Your task to perform on an android device: Play the last video I watched on Youtube Image 0: 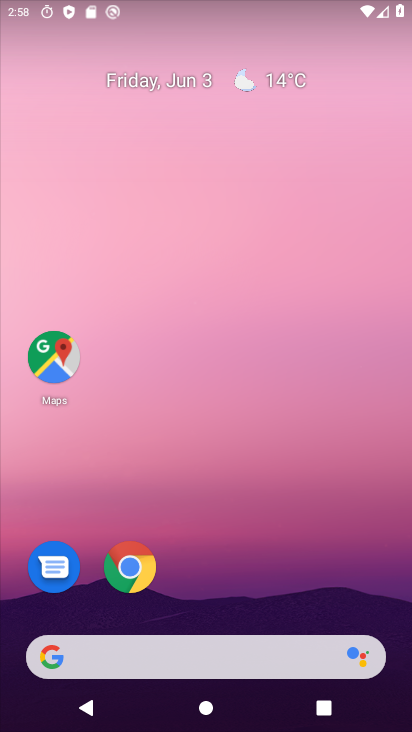
Step 0: drag from (210, 434) to (269, 48)
Your task to perform on an android device: Play the last video I watched on Youtube Image 1: 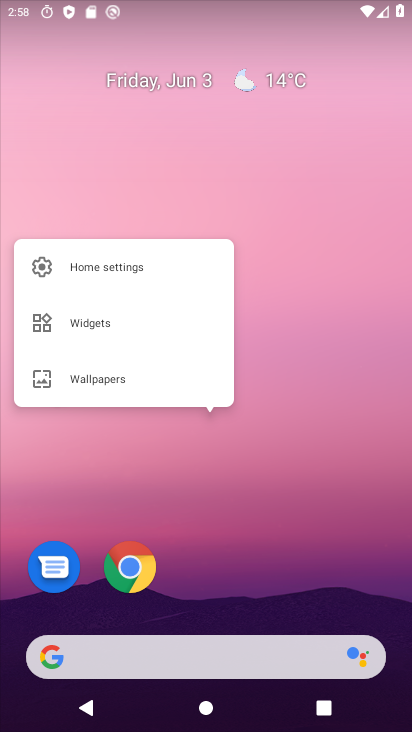
Step 1: click (269, 579)
Your task to perform on an android device: Play the last video I watched on Youtube Image 2: 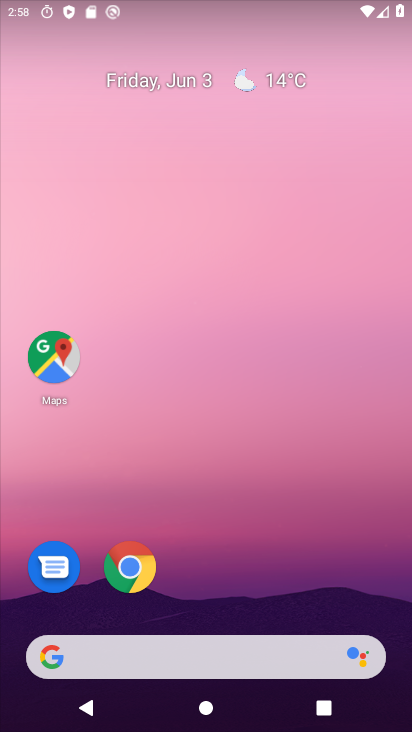
Step 2: drag from (260, 556) to (319, 9)
Your task to perform on an android device: Play the last video I watched on Youtube Image 3: 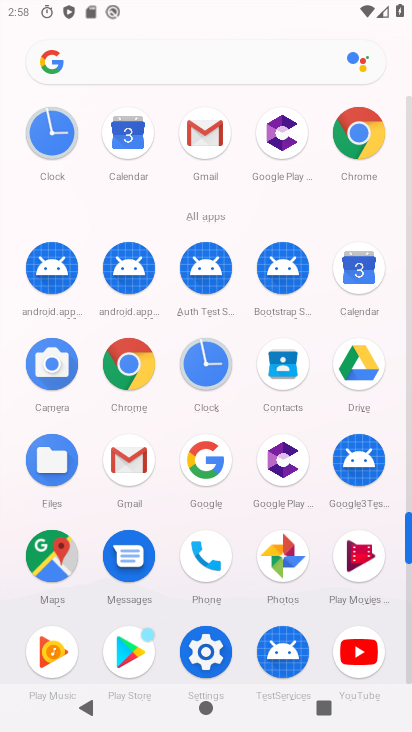
Step 3: click (356, 642)
Your task to perform on an android device: Play the last video I watched on Youtube Image 4: 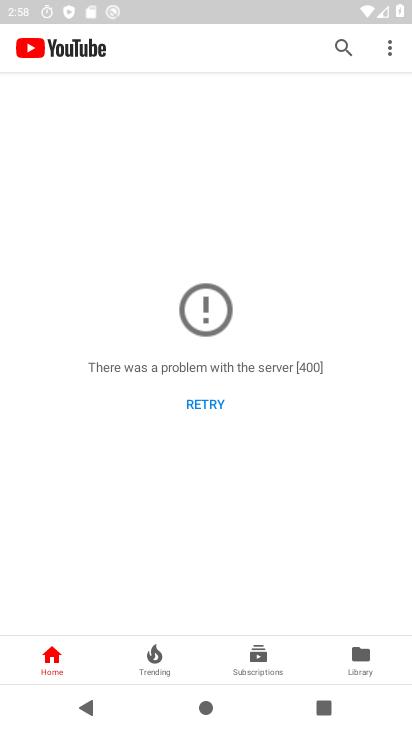
Step 4: click (359, 660)
Your task to perform on an android device: Play the last video I watched on Youtube Image 5: 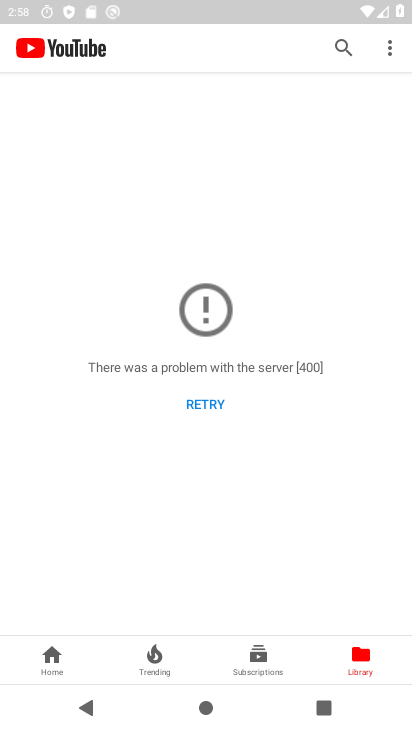
Step 5: click (208, 405)
Your task to perform on an android device: Play the last video I watched on Youtube Image 6: 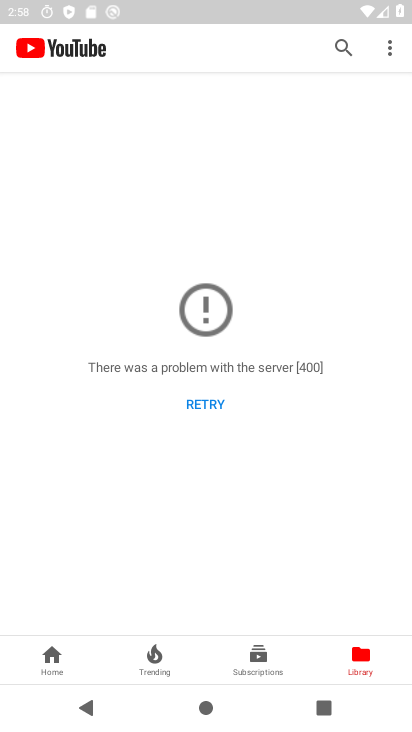
Step 6: click (205, 404)
Your task to perform on an android device: Play the last video I watched on Youtube Image 7: 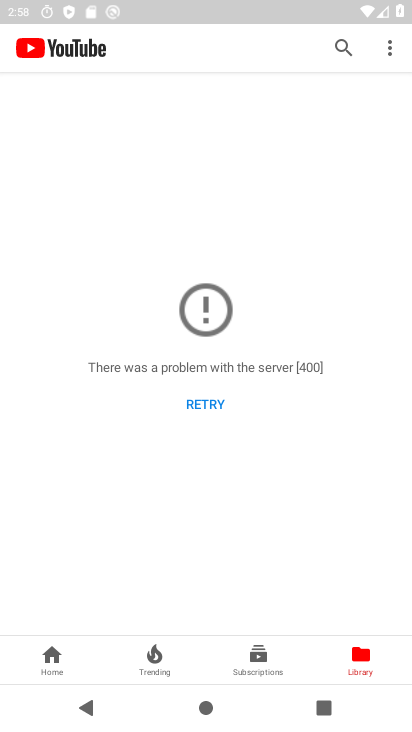
Step 7: click (205, 404)
Your task to perform on an android device: Play the last video I watched on Youtube Image 8: 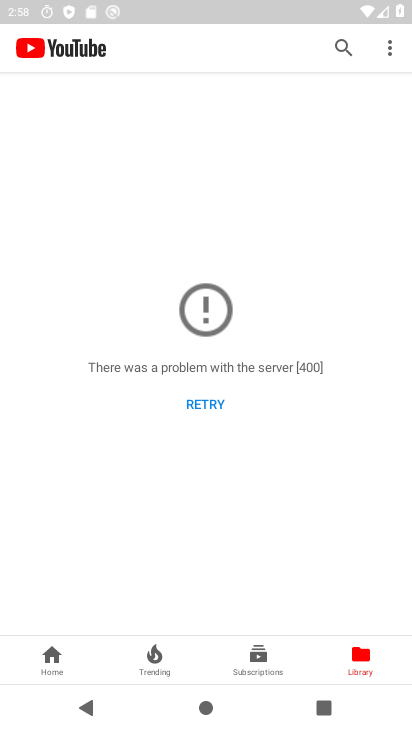
Step 8: click (205, 404)
Your task to perform on an android device: Play the last video I watched on Youtube Image 9: 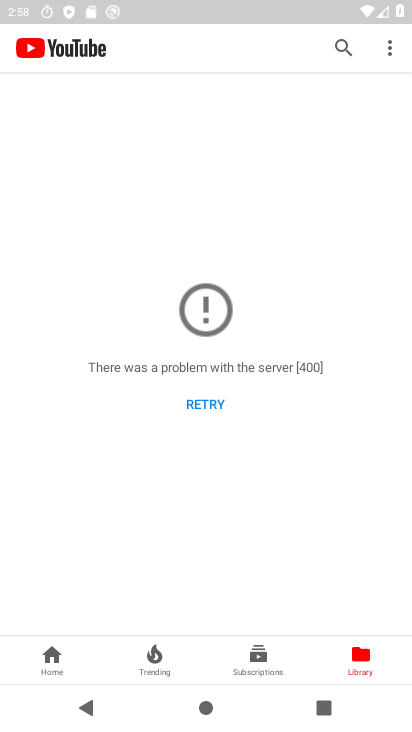
Step 9: click (205, 404)
Your task to perform on an android device: Play the last video I watched on Youtube Image 10: 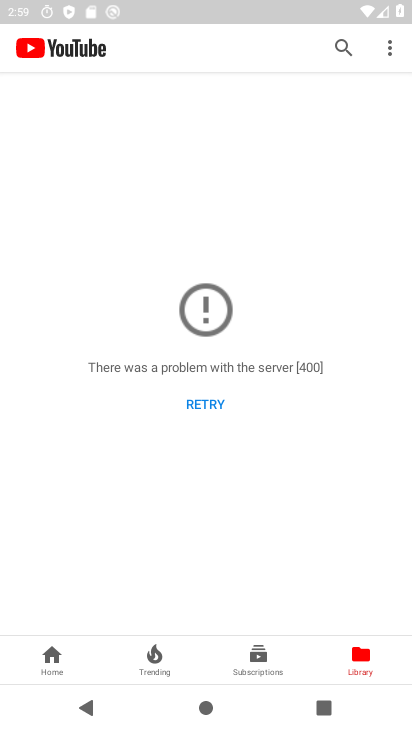
Step 10: click (205, 404)
Your task to perform on an android device: Play the last video I watched on Youtube Image 11: 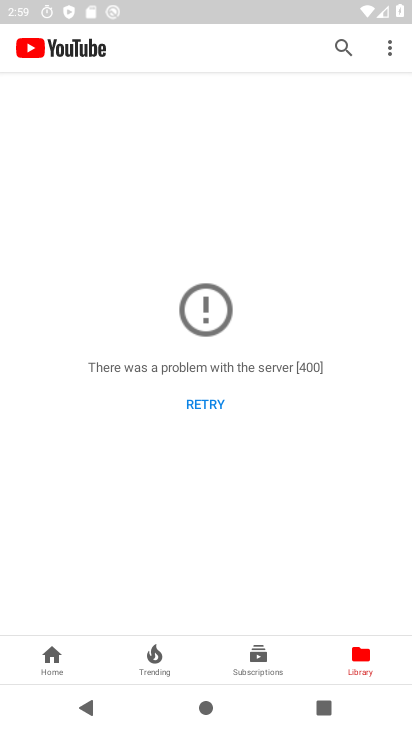
Step 11: click (204, 405)
Your task to perform on an android device: Play the last video I watched on Youtube Image 12: 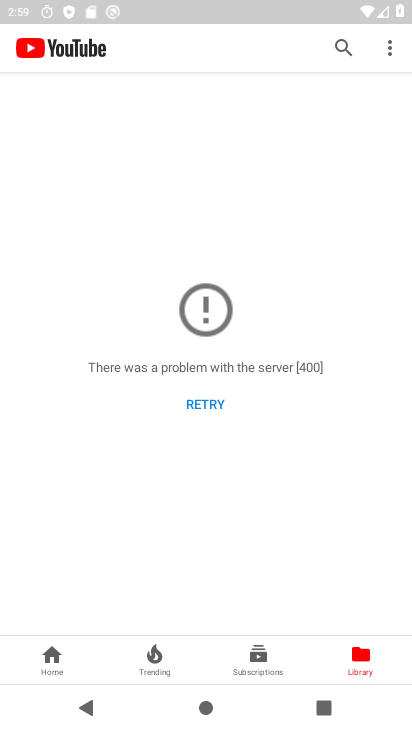
Step 12: click (203, 405)
Your task to perform on an android device: Play the last video I watched on Youtube Image 13: 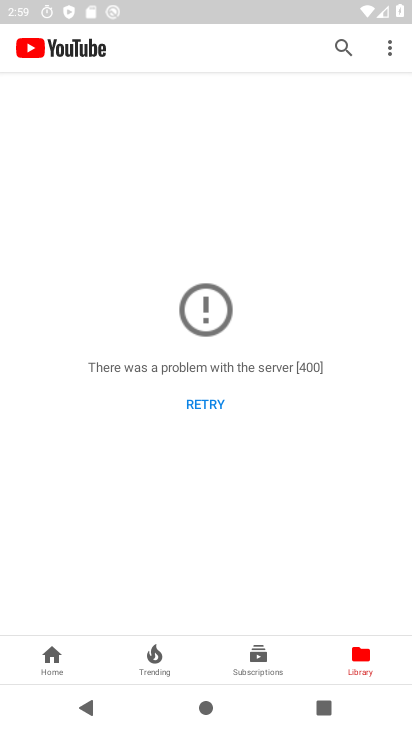
Step 13: click (205, 406)
Your task to perform on an android device: Play the last video I watched on Youtube Image 14: 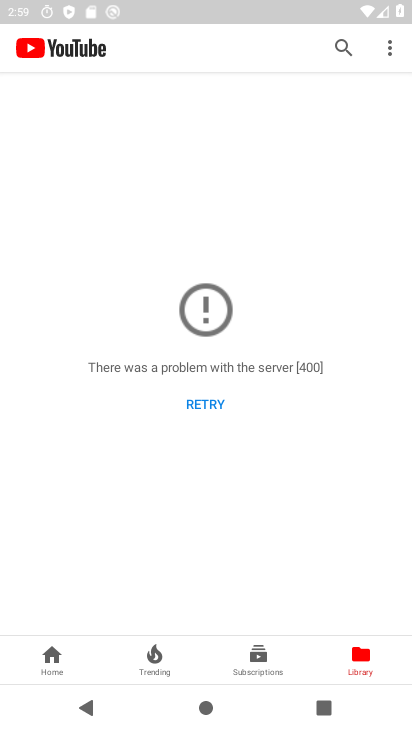
Step 14: task complete